Your task to perform on an android device: Open accessibility settings Image 0: 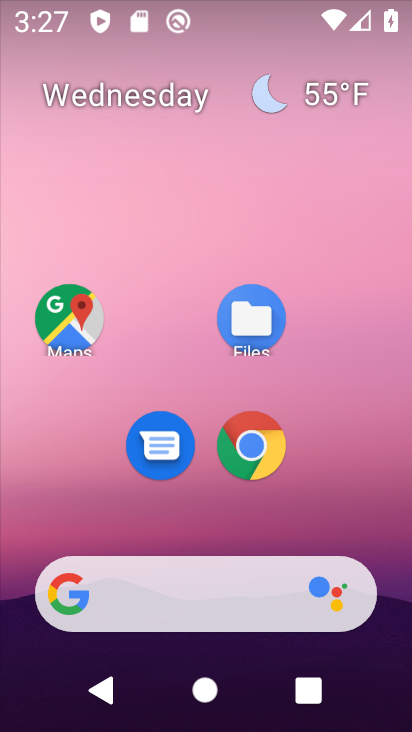
Step 0: drag from (298, 488) to (270, 94)
Your task to perform on an android device: Open accessibility settings Image 1: 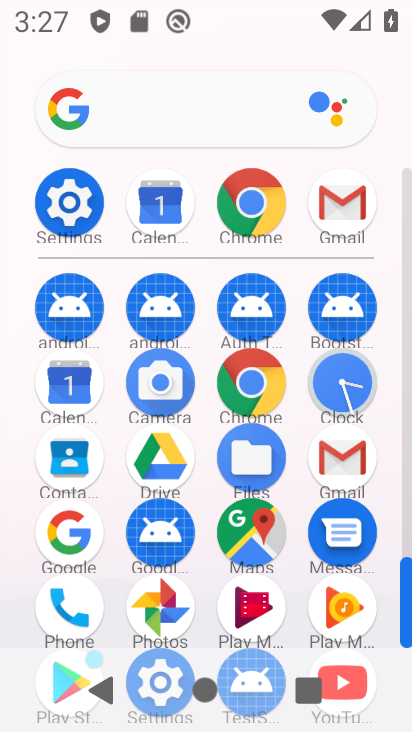
Step 1: click (78, 210)
Your task to perform on an android device: Open accessibility settings Image 2: 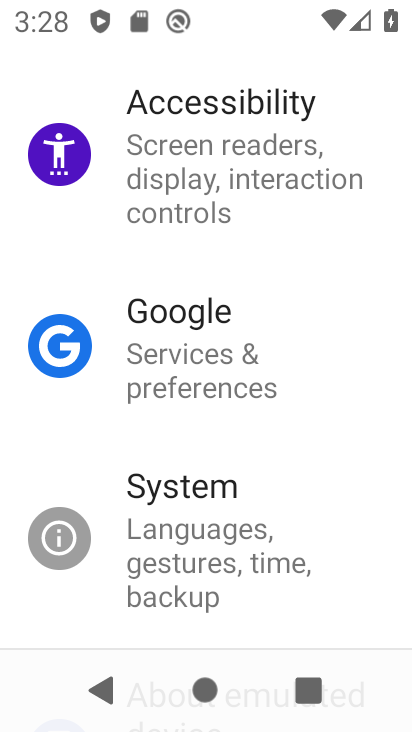
Step 2: click (219, 149)
Your task to perform on an android device: Open accessibility settings Image 3: 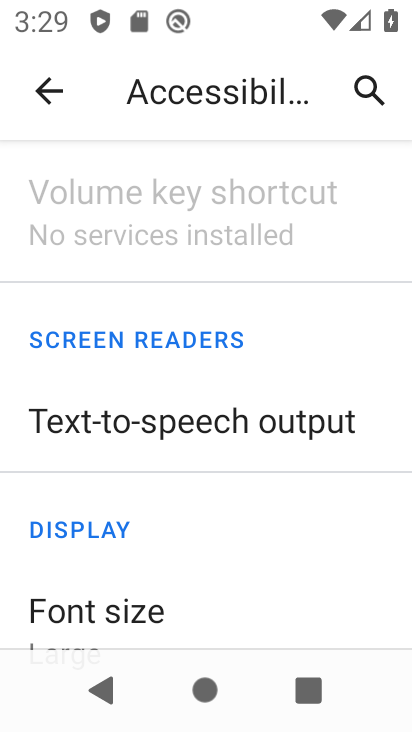
Step 3: task complete